Your task to perform on an android device: set the stopwatch Image 0: 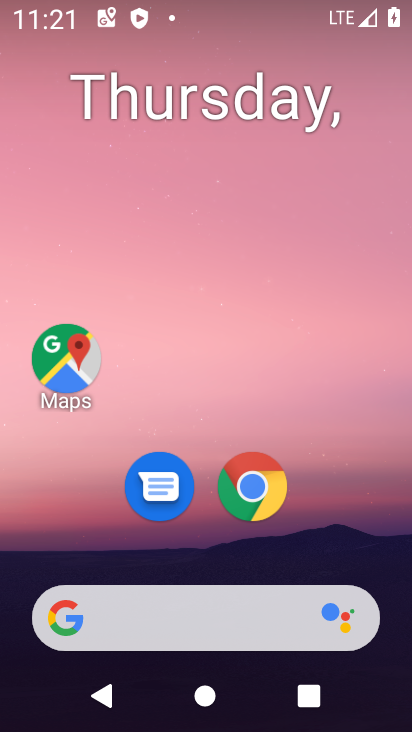
Step 0: drag from (225, 522) to (274, 42)
Your task to perform on an android device: set the stopwatch Image 1: 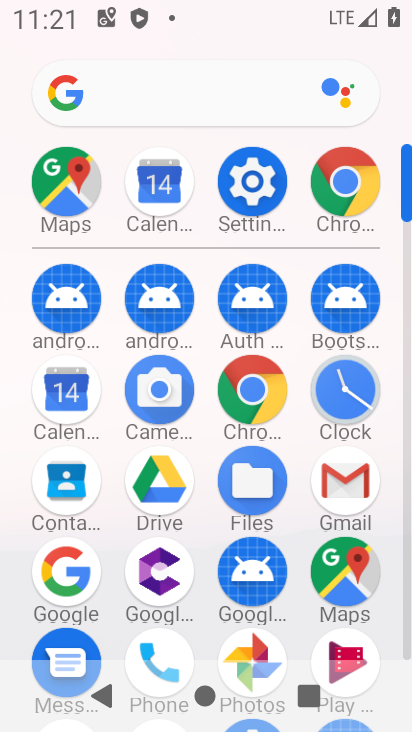
Step 1: click (355, 389)
Your task to perform on an android device: set the stopwatch Image 2: 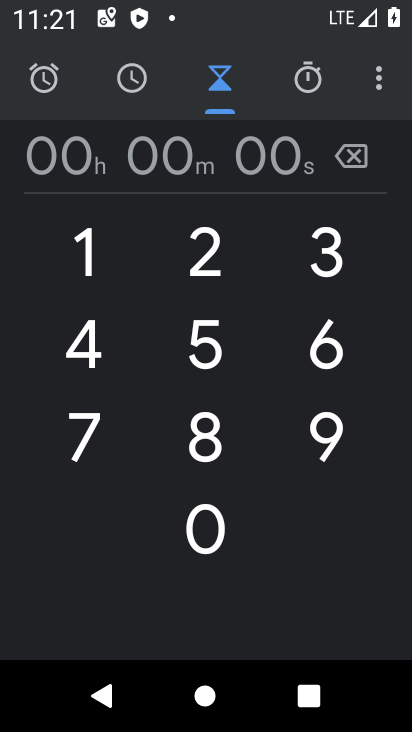
Step 2: click (306, 68)
Your task to perform on an android device: set the stopwatch Image 3: 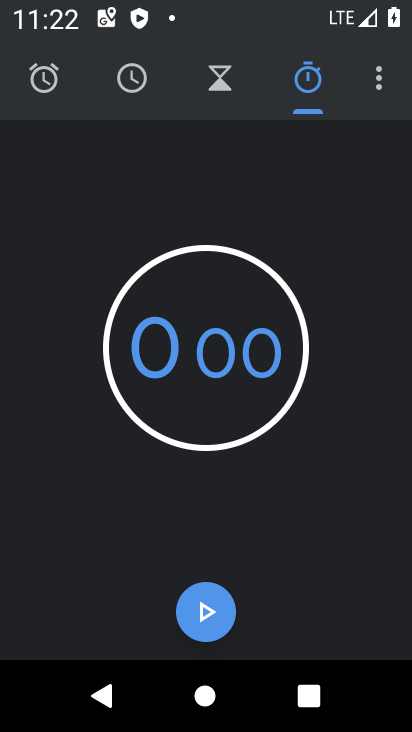
Step 3: click (198, 372)
Your task to perform on an android device: set the stopwatch Image 4: 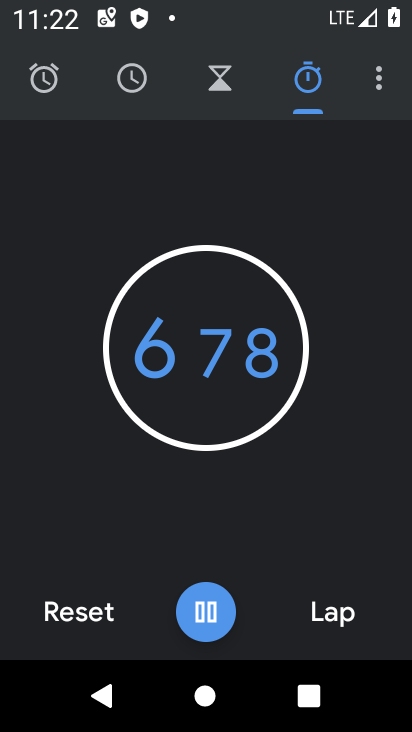
Step 4: click (197, 373)
Your task to perform on an android device: set the stopwatch Image 5: 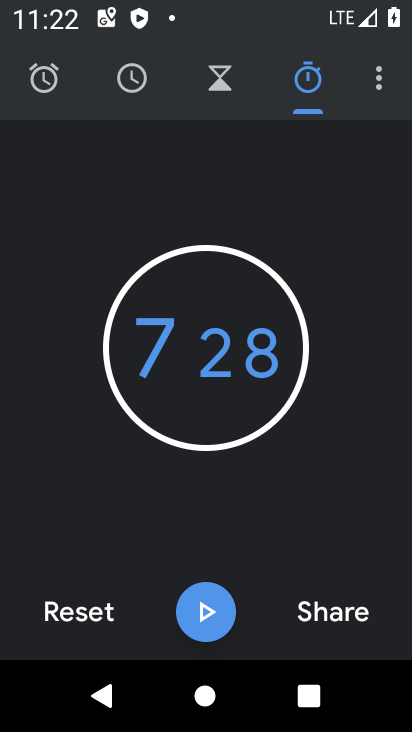
Step 5: task complete